Your task to perform on an android device: Go to Google maps Image 0: 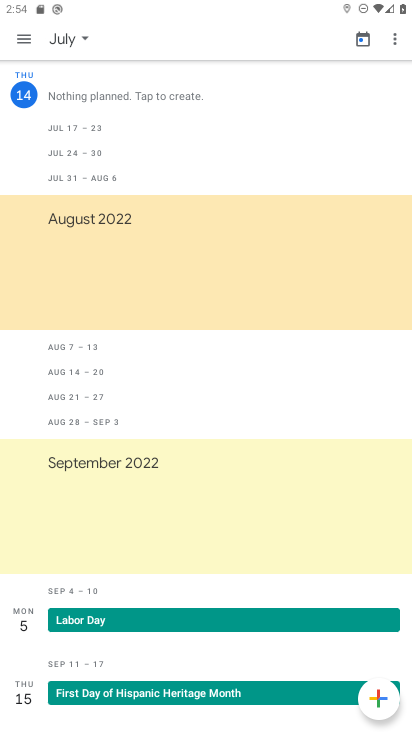
Step 0: press home button
Your task to perform on an android device: Go to Google maps Image 1: 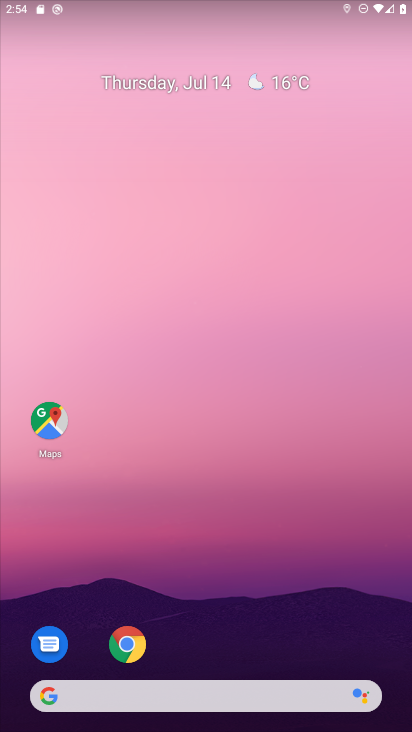
Step 1: click (55, 432)
Your task to perform on an android device: Go to Google maps Image 2: 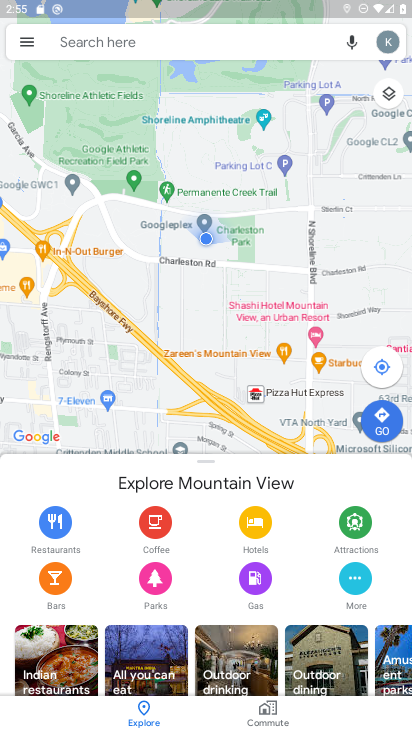
Step 2: task complete